Your task to perform on an android device: What's on my calendar today? Image 0: 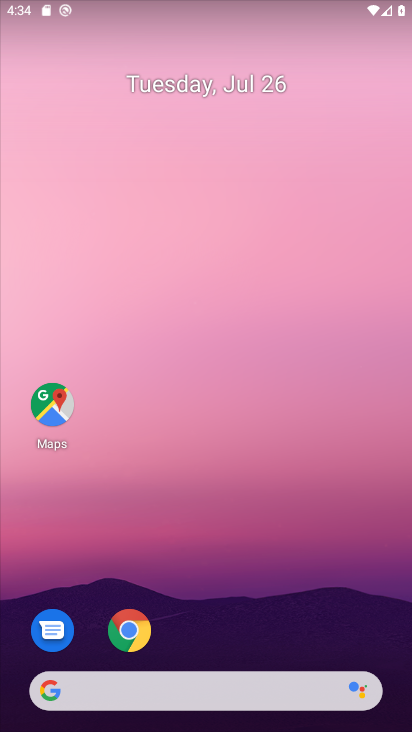
Step 0: drag from (293, 616) to (129, 62)
Your task to perform on an android device: What's on my calendar today? Image 1: 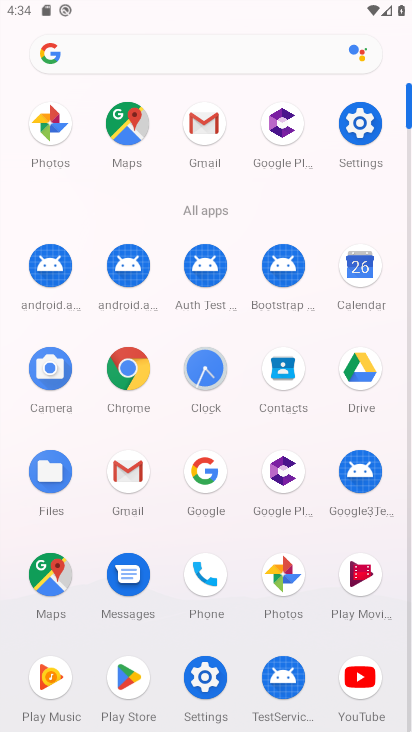
Step 1: click (359, 263)
Your task to perform on an android device: What's on my calendar today? Image 2: 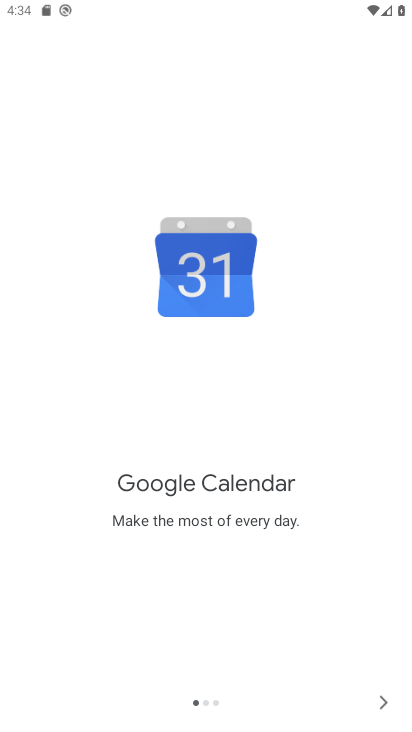
Step 2: click (390, 704)
Your task to perform on an android device: What's on my calendar today? Image 3: 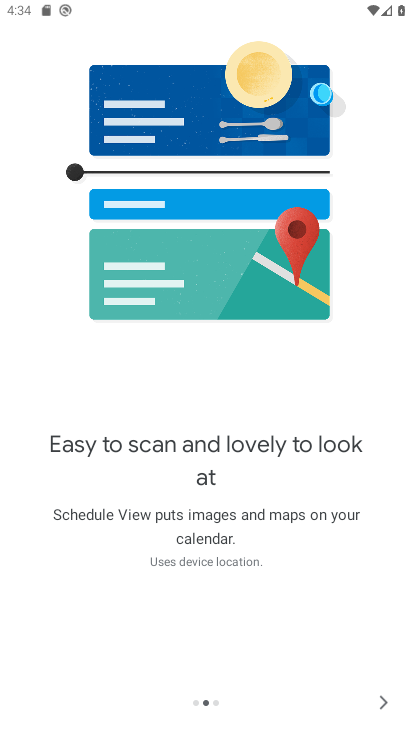
Step 3: click (386, 705)
Your task to perform on an android device: What's on my calendar today? Image 4: 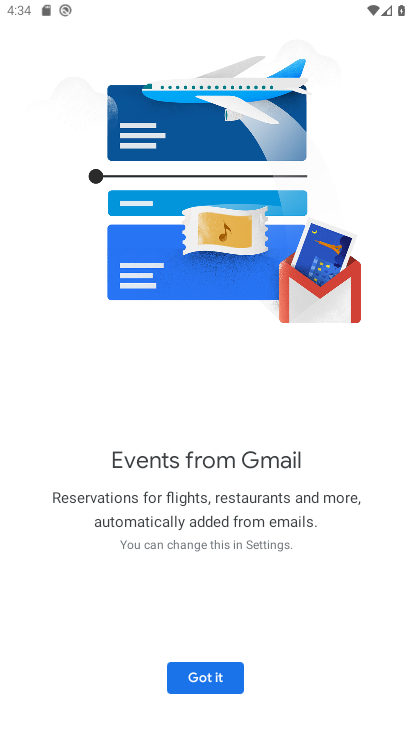
Step 4: click (216, 680)
Your task to perform on an android device: What's on my calendar today? Image 5: 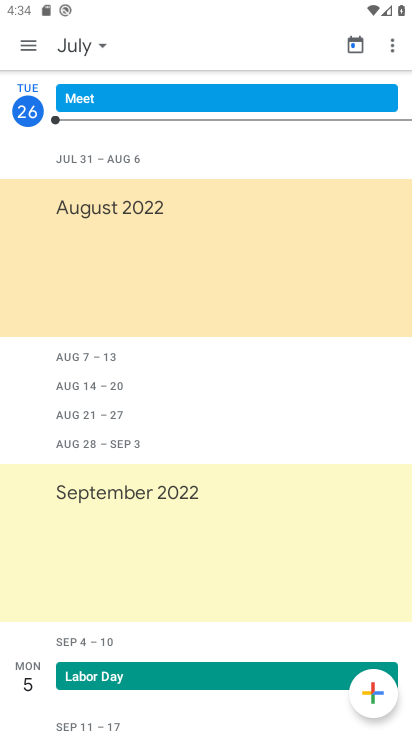
Step 5: click (27, 53)
Your task to perform on an android device: What's on my calendar today? Image 6: 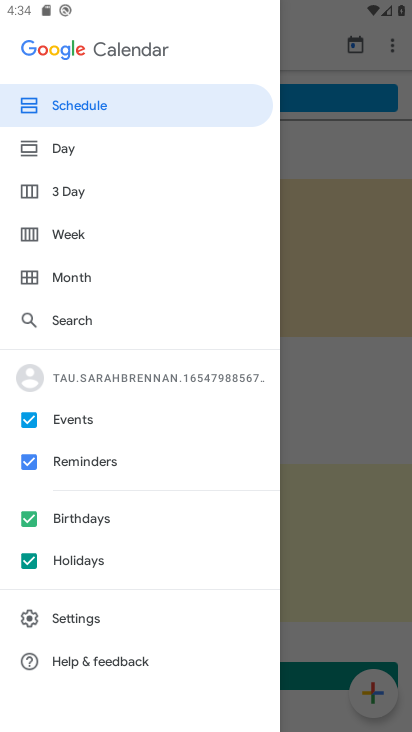
Step 6: click (92, 151)
Your task to perform on an android device: What's on my calendar today? Image 7: 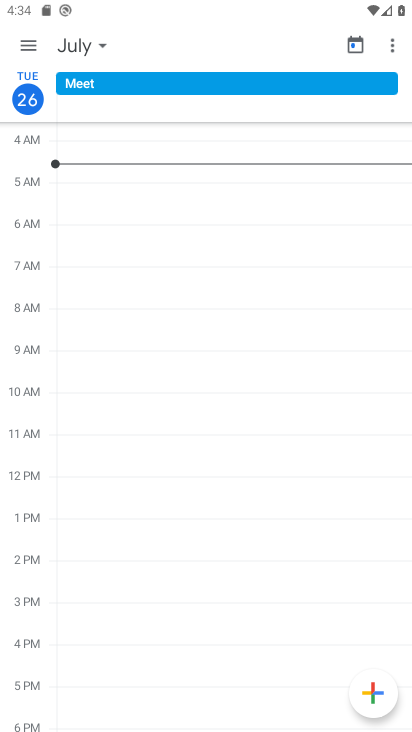
Step 7: task complete